Your task to perform on an android device: turn off location history Image 0: 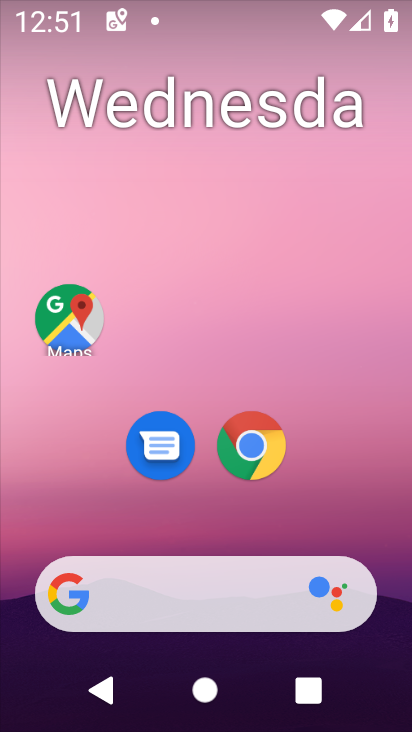
Step 0: drag from (335, 461) to (317, 79)
Your task to perform on an android device: turn off location history Image 1: 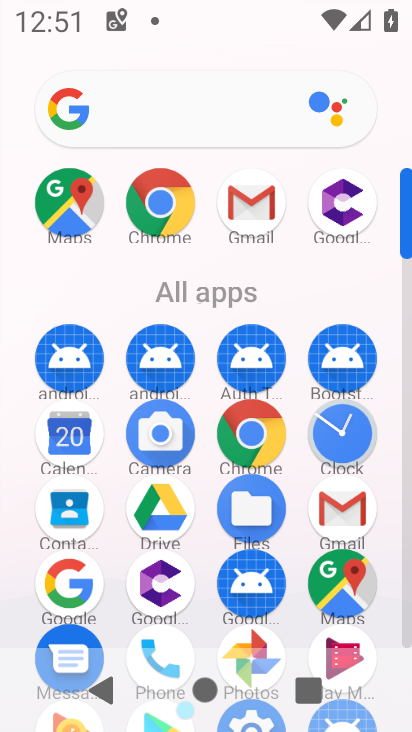
Step 1: drag from (302, 547) to (334, 236)
Your task to perform on an android device: turn off location history Image 2: 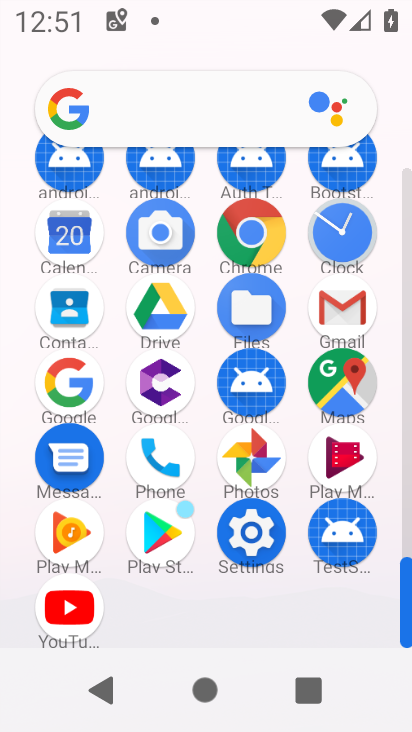
Step 2: click (258, 525)
Your task to perform on an android device: turn off location history Image 3: 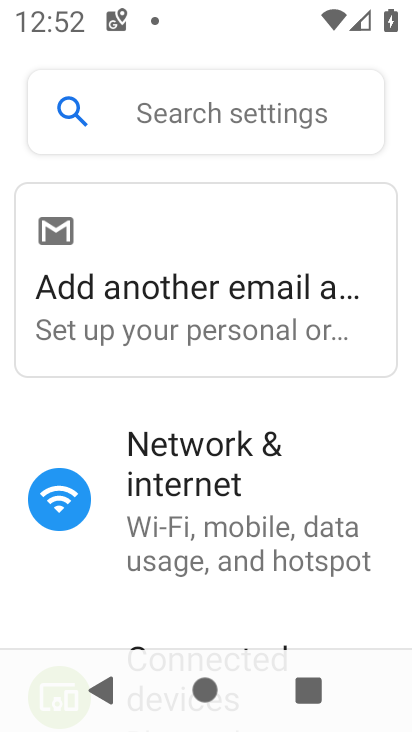
Step 3: drag from (230, 595) to (341, 49)
Your task to perform on an android device: turn off location history Image 4: 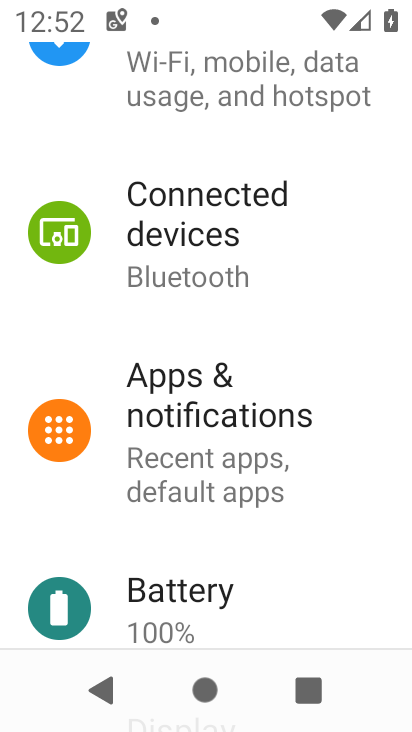
Step 4: drag from (206, 562) to (337, 76)
Your task to perform on an android device: turn off location history Image 5: 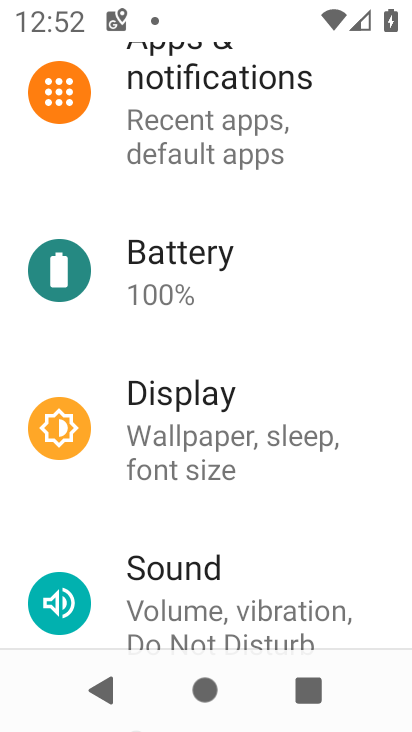
Step 5: drag from (198, 535) to (306, 143)
Your task to perform on an android device: turn off location history Image 6: 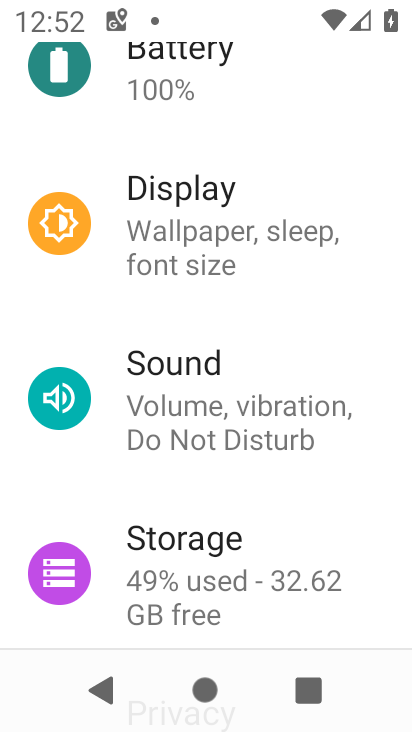
Step 6: drag from (211, 453) to (259, 82)
Your task to perform on an android device: turn off location history Image 7: 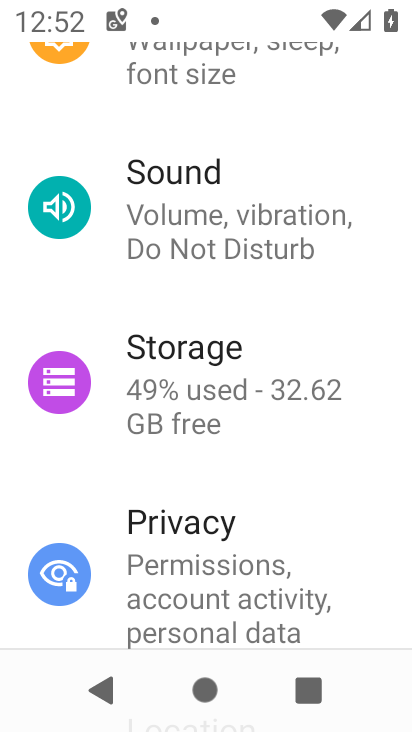
Step 7: drag from (222, 496) to (291, 23)
Your task to perform on an android device: turn off location history Image 8: 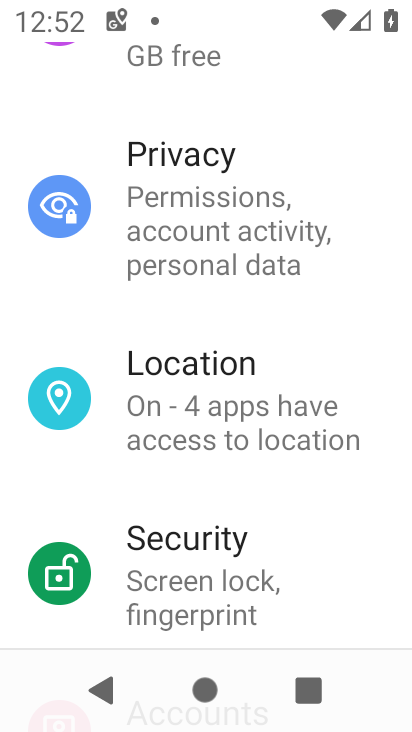
Step 8: click (185, 404)
Your task to perform on an android device: turn off location history Image 9: 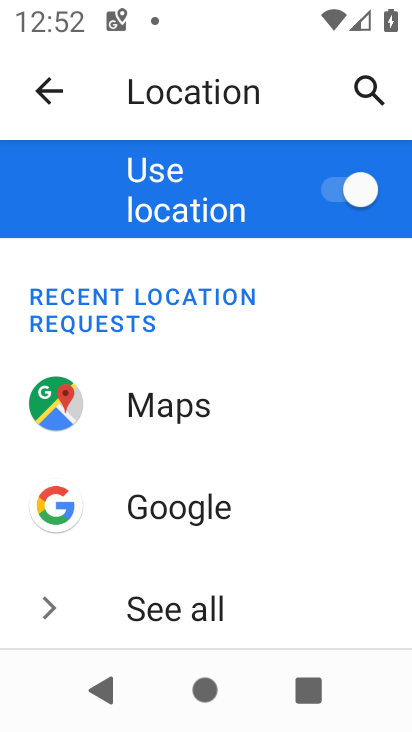
Step 9: drag from (270, 564) to (217, 67)
Your task to perform on an android device: turn off location history Image 10: 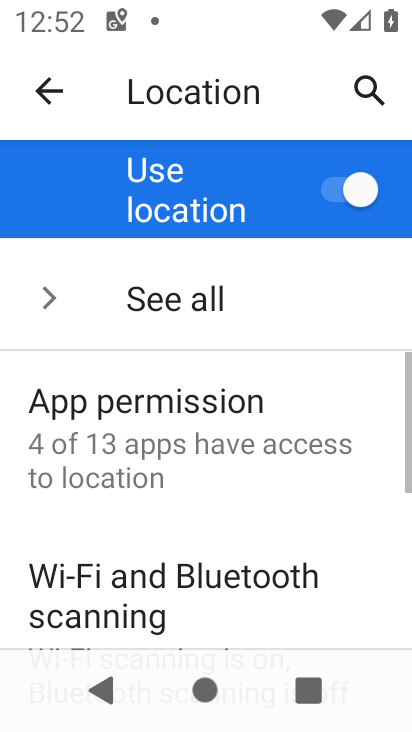
Step 10: drag from (184, 512) to (227, 285)
Your task to perform on an android device: turn off location history Image 11: 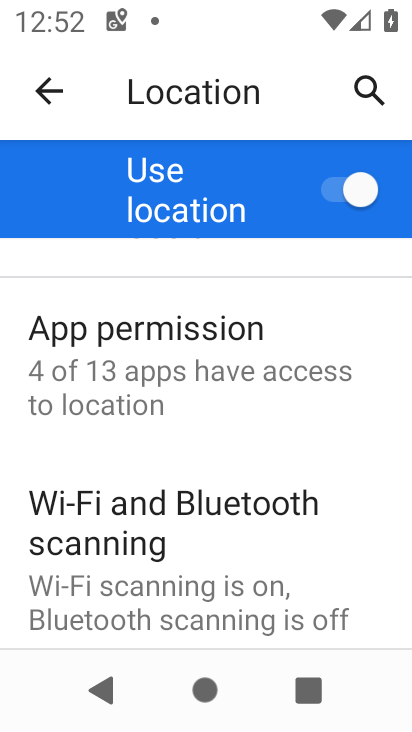
Step 11: drag from (185, 315) to (181, 450)
Your task to perform on an android device: turn off location history Image 12: 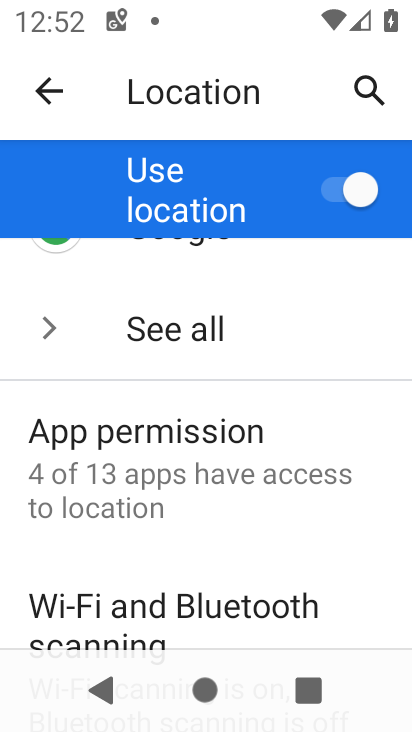
Step 12: drag from (162, 528) to (263, 182)
Your task to perform on an android device: turn off location history Image 13: 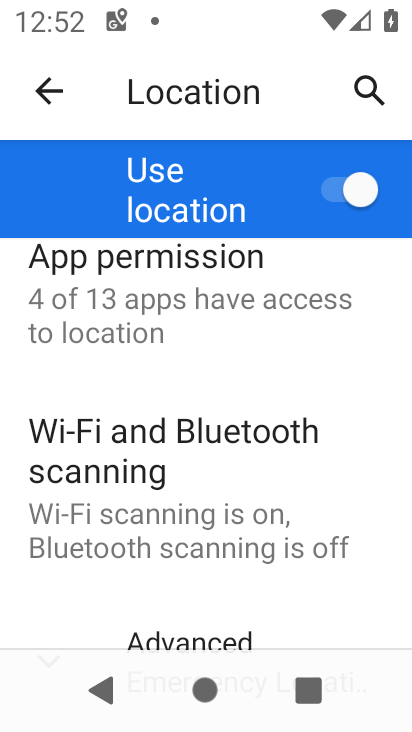
Step 13: drag from (170, 553) to (248, 288)
Your task to perform on an android device: turn off location history Image 14: 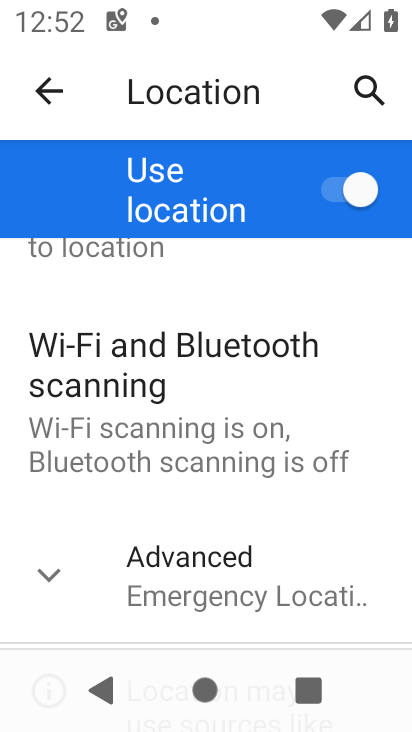
Step 14: click (183, 573)
Your task to perform on an android device: turn off location history Image 15: 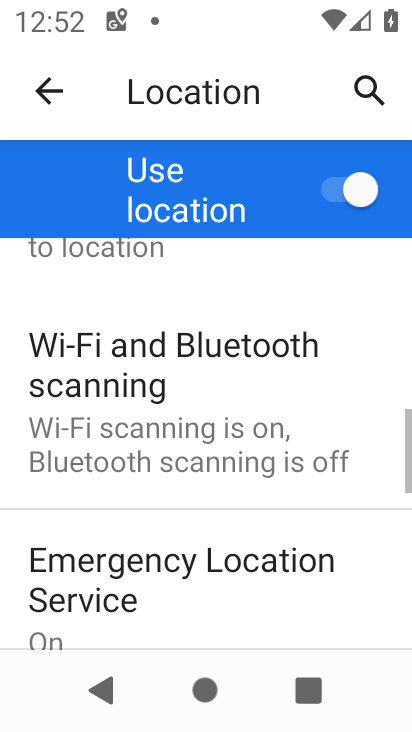
Step 15: drag from (195, 559) to (241, 143)
Your task to perform on an android device: turn off location history Image 16: 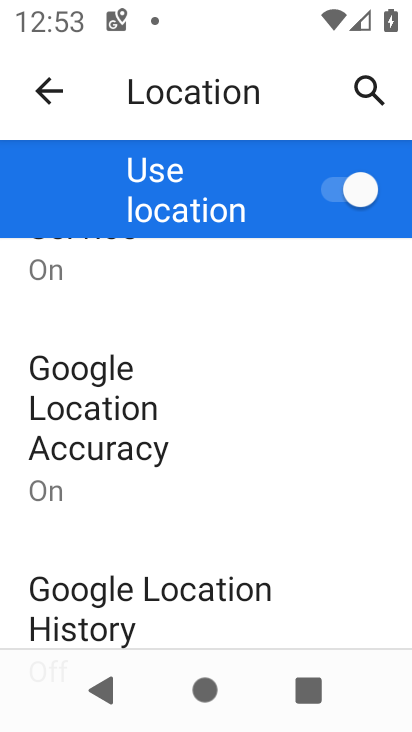
Step 16: drag from (227, 418) to (251, 295)
Your task to perform on an android device: turn off location history Image 17: 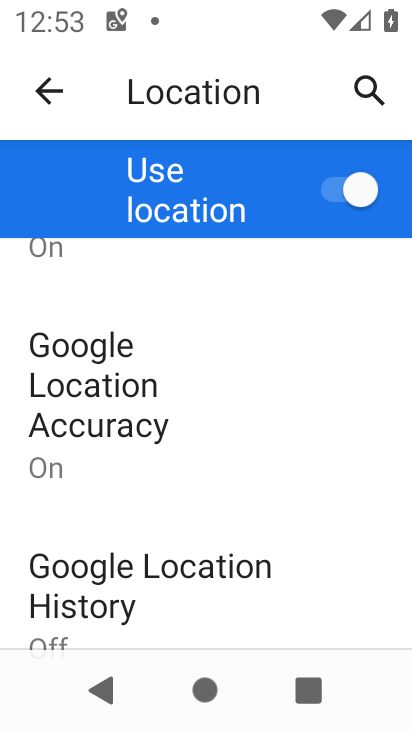
Step 17: click (124, 564)
Your task to perform on an android device: turn off location history Image 18: 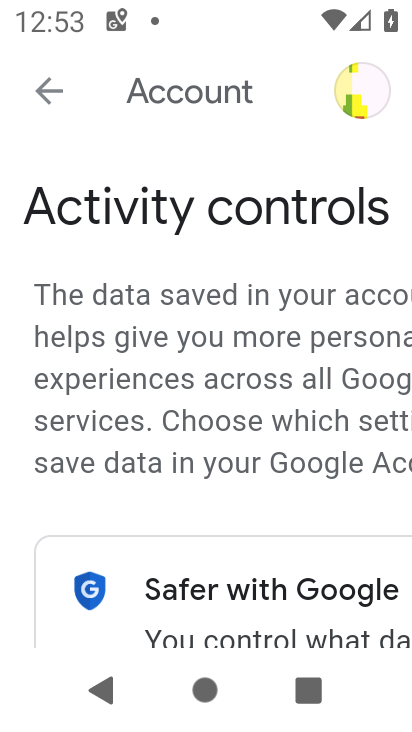
Step 18: drag from (291, 591) to (296, 104)
Your task to perform on an android device: turn off location history Image 19: 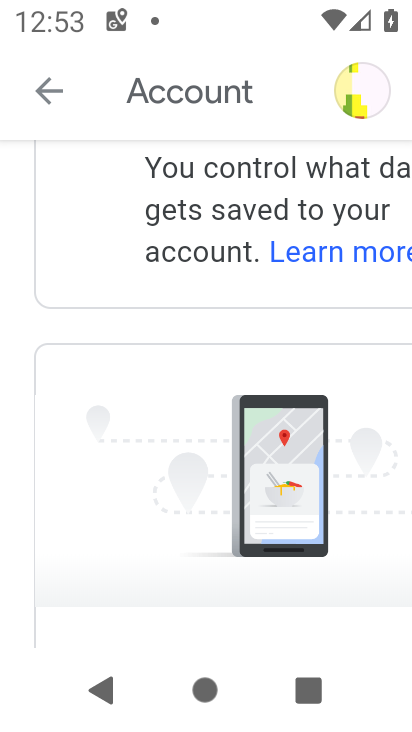
Step 19: drag from (231, 521) to (235, 84)
Your task to perform on an android device: turn off location history Image 20: 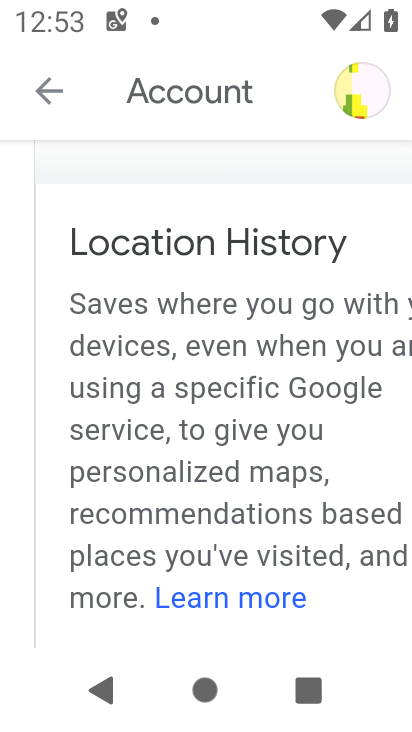
Step 20: drag from (270, 493) to (265, 89)
Your task to perform on an android device: turn off location history Image 21: 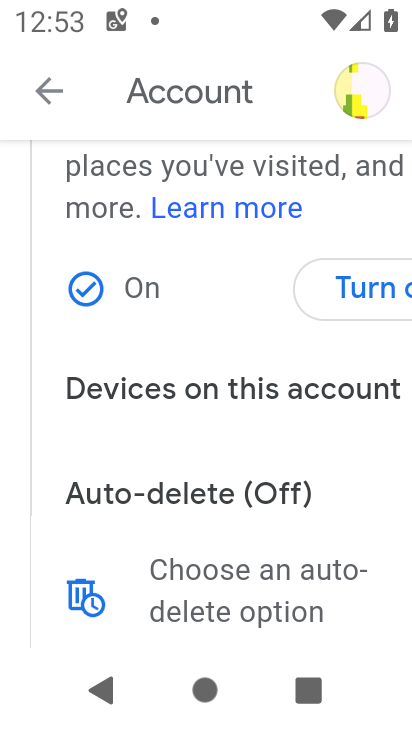
Step 21: click (355, 297)
Your task to perform on an android device: turn off location history Image 22: 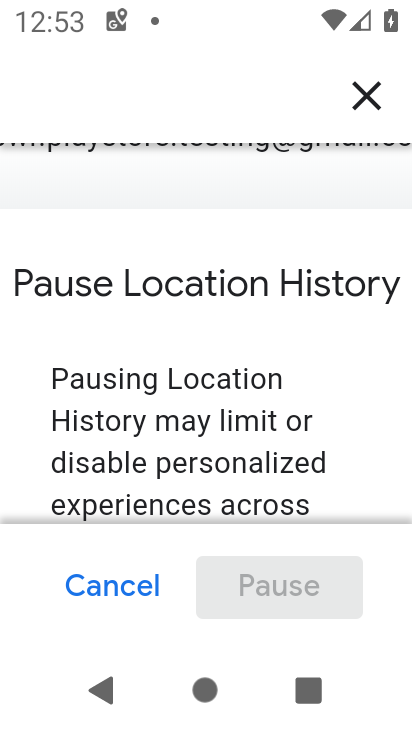
Step 22: drag from (247, 482) to (291, 101)
Your task to perform on an android device: turn off location history Image 23: 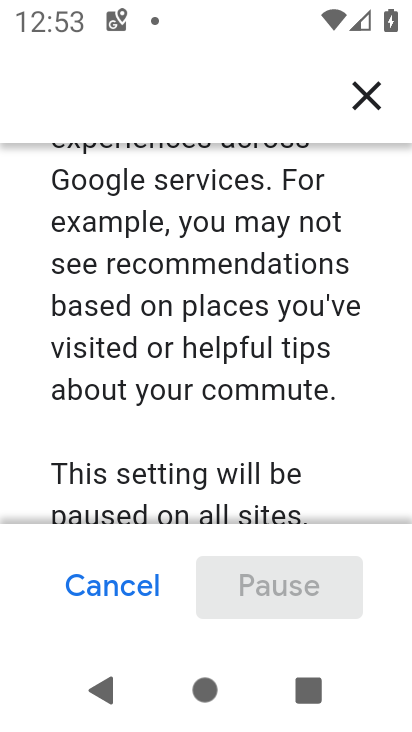
Step 23: drag from (256, 447) to (310, 134)
Your task to perform on an android device: turn off location history Image 24: 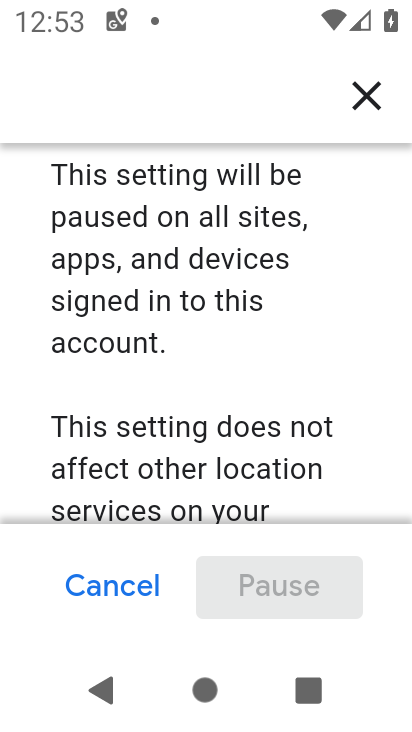
Step 24: drag from (179, 443) to (264, 72)
Your task to perform on an android device: turn off location history Image 25: 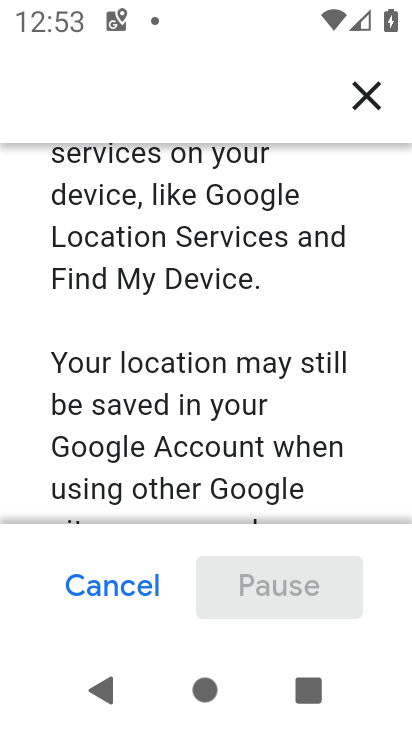
Step 25: drag from (199, 499) to (265, 160)
Your task to perform on an android device: turn off location history Image 26: 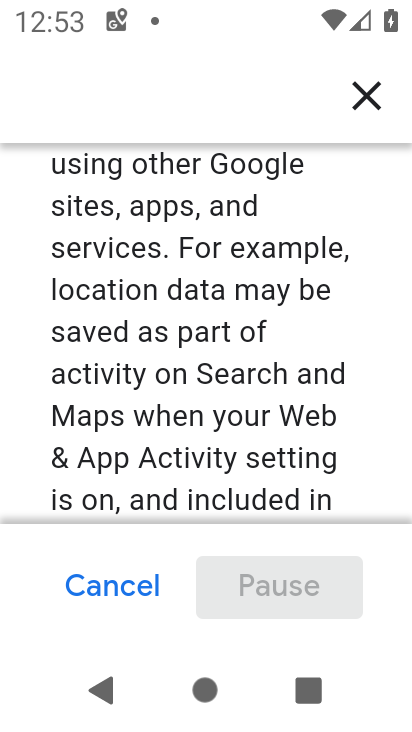
Step 26: drag from (270, 411) to (298, 173)
Your task to perform on an android device: turn off location history Image 27: 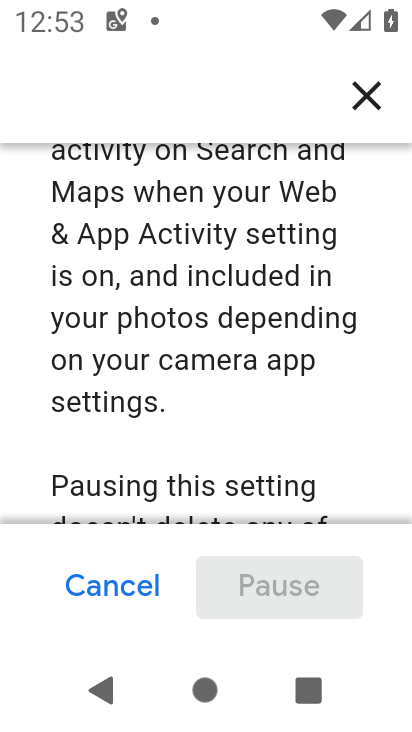
Step 27: drag from (259, 479) to (283, 150)
Your task to perform on an android device: turn off location history Image 28: 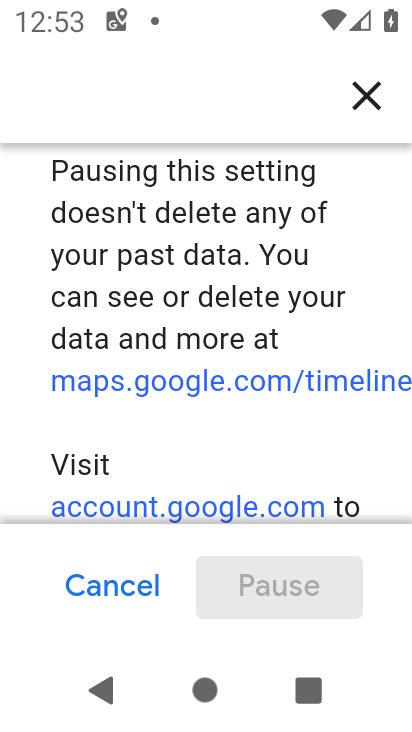
Step 28: drag from (284, 442) to (284, 127)
Your task to perform on an android device: turn off location history Image 29: 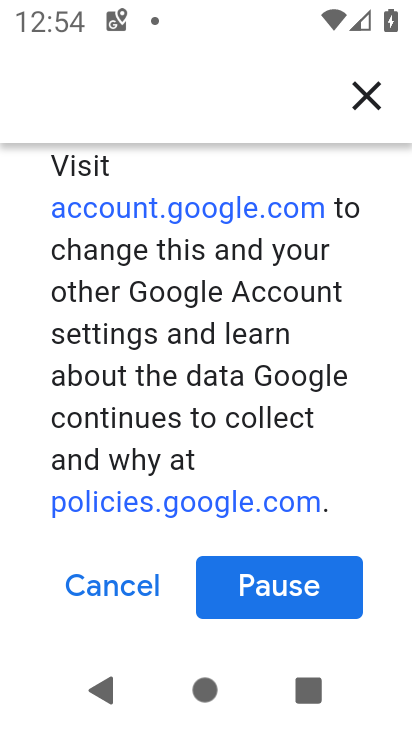
Step 29: drag from (235, 459) to (277, 162)
Your task to perform on an android device: turn off location history Image 30: 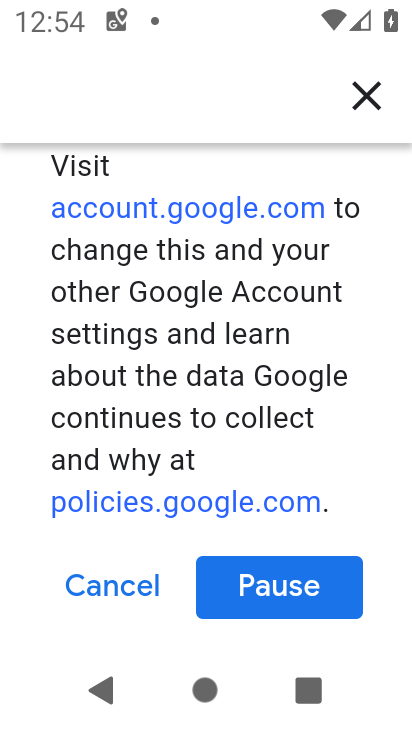
Step 30: click (278, 590)
Your task to perform on an android device: turn off location history Image 31: 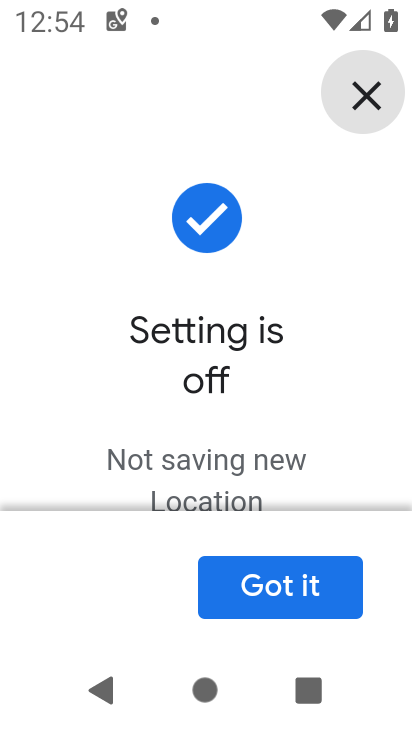
Step 31: task complete